Your task to perform on an android device: find which apps use the phone's location Image 0: 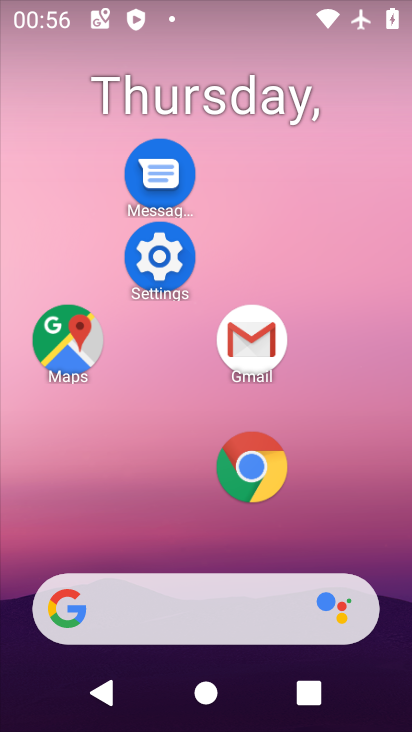
Step 0: drag from (189, 559) to (216, 189)
Your task to perform on an android device: find which apps use the phone's location Image 1: 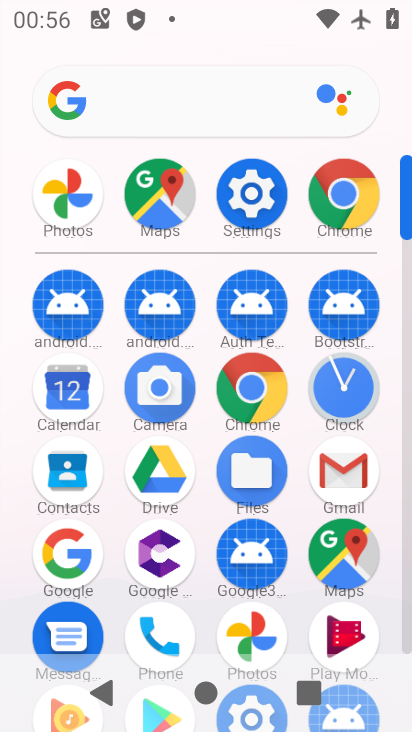
Step 1: click (253, 185)
Your task to perform on an android device: find which apps use the phone's location Image 2: 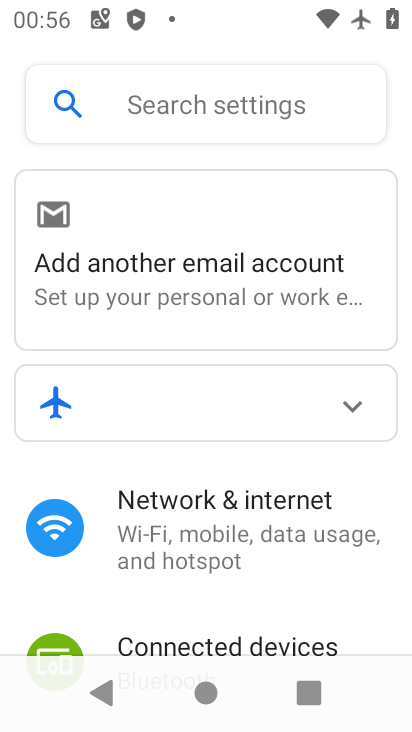
Step 2: drag from (227, 568) to (296, 135)
Your task to perform on an android device: find which apps use the phone's location Image 3: 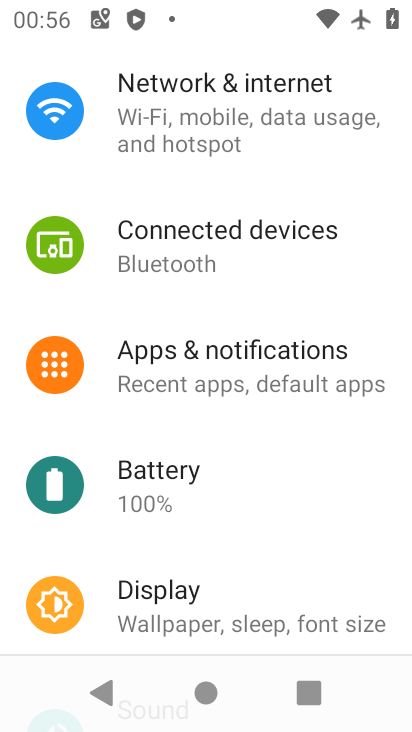
Step 3: drag from (194, 208) to (194, 91)
Your task to perform on an android device: find which apps use the phone's location Image 4: 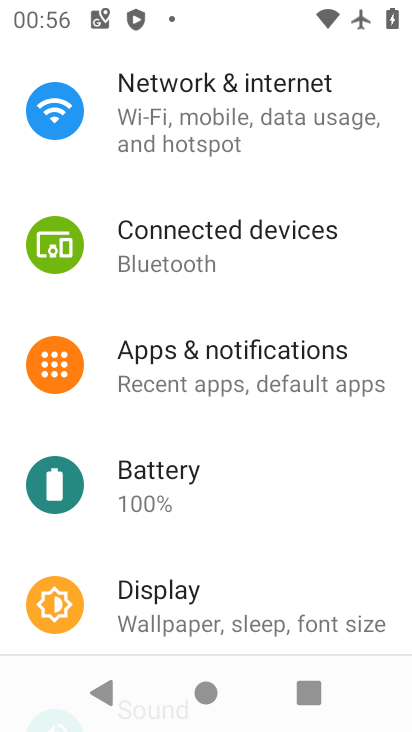
Step 4: drag from (273, 224) to (283, 167)
Your task to perform on an android device: find which apps use the phone's location Image 5: 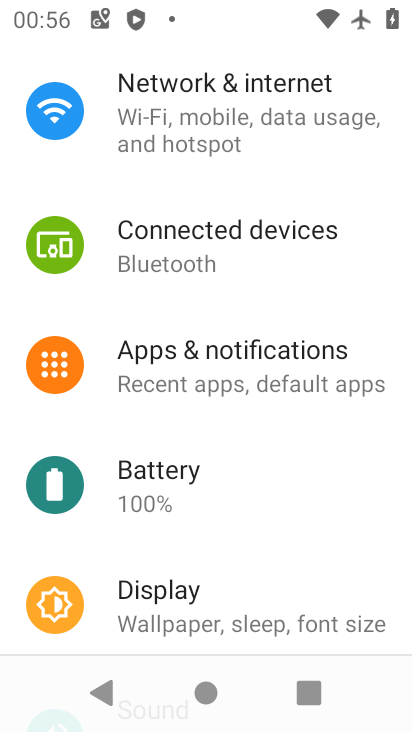
Step 5: drag from (249, 330) to (298, 144)
Your task to perform on an android device: find which apps use the phone's location Image 6: 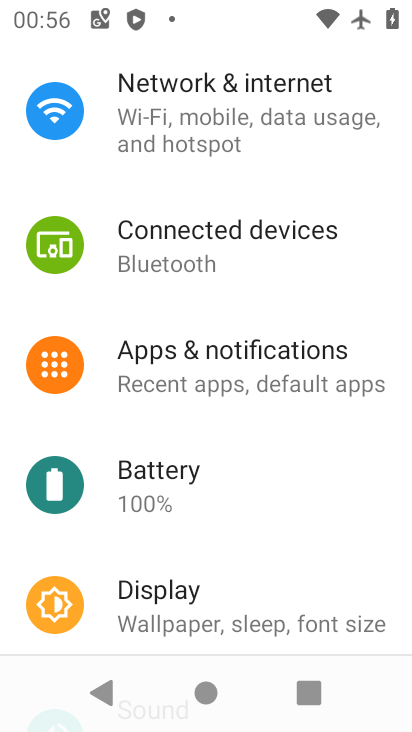
Step 6: drag from (195, 562) to (249, 209)
Your task to perform on an android device: find which apps use the phone's location Image 7: 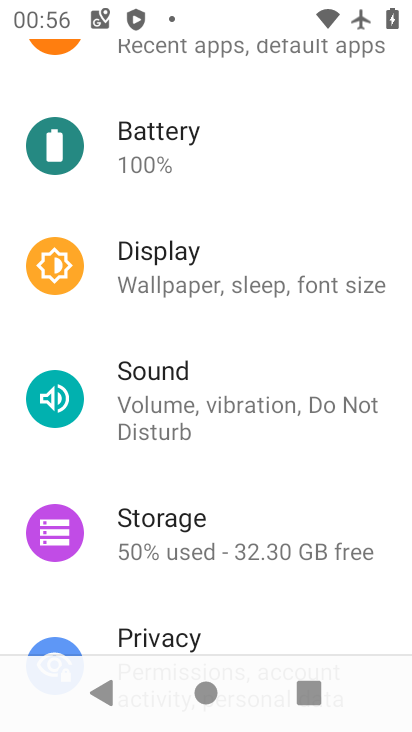
Step 7: drag from (260, 329) to (275, 201)
Your task to perform on an android device: find which apps use the phone's location Image 8: 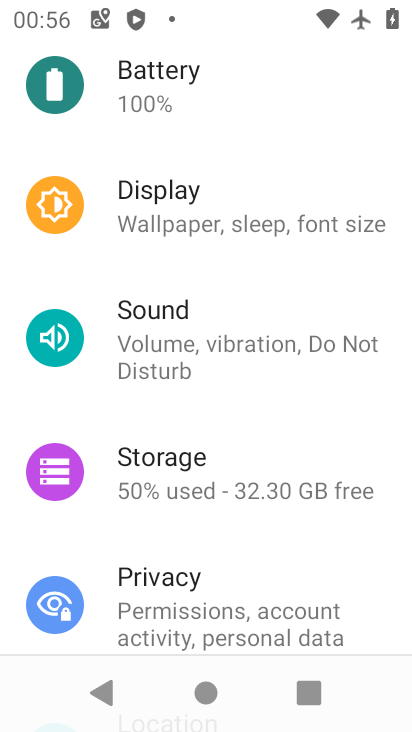
Step 8: drag from (220, 382) to (230, 205)
Your task to perform on an android device: find which apps use the phone's location Image 9: 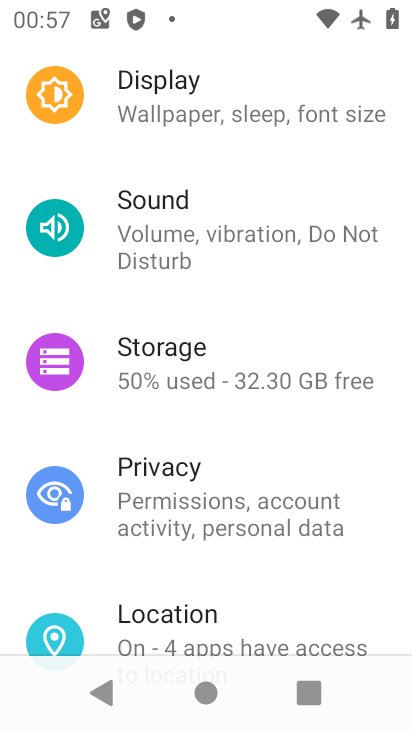
Step 9: click (193, 623)
Your task to perform on an android device: find which apps use the phone's location Image 10: 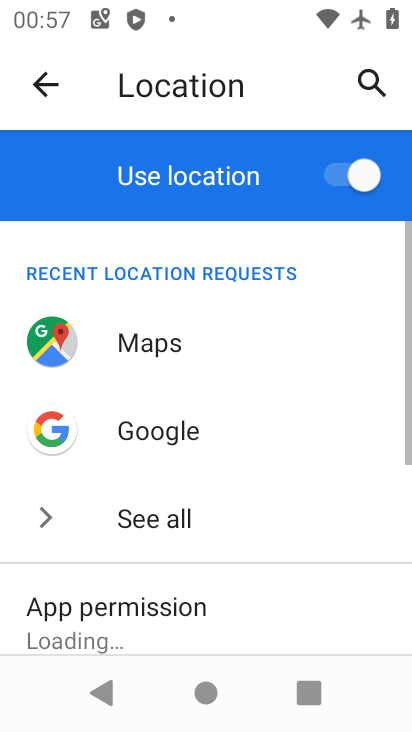
Step 10: drag from (243, 544) to (295, 279)
Your task to perform on an android device: find which apps use the phone's location Image 11: 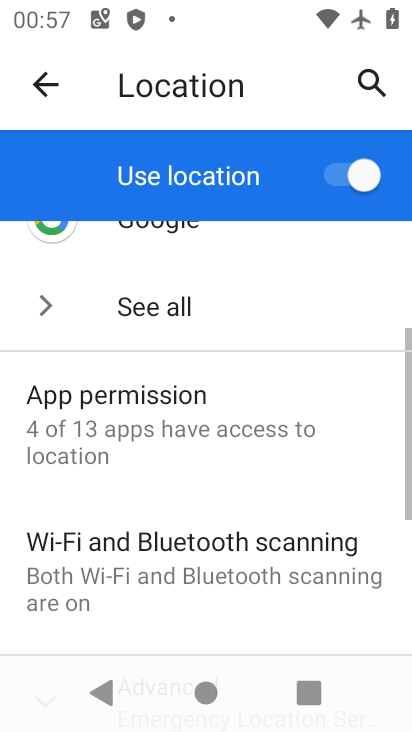
Step 11: click (129, 398)
Your task to perform on an android device: find which apps use the phone's location Image 12: 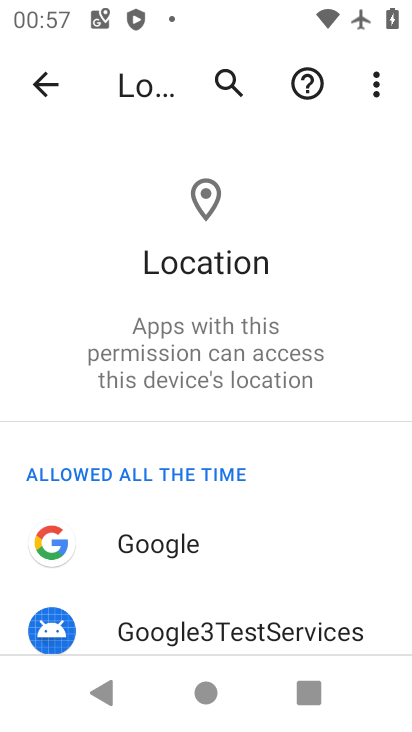
Step 12: task complete